Your task to perform on an android device: View the shopping cart on costco.com. Image 0: 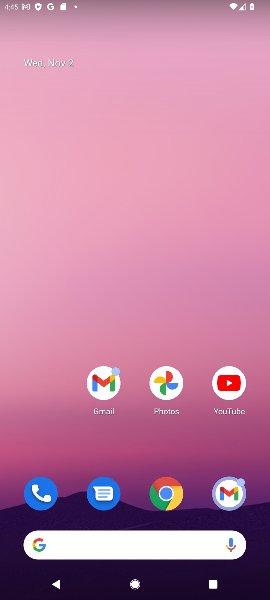
Step 0: drag from (104, 510) to (145, 156)
Your task to perform on an android device: View the shopping cart on costco.com. Image 1: 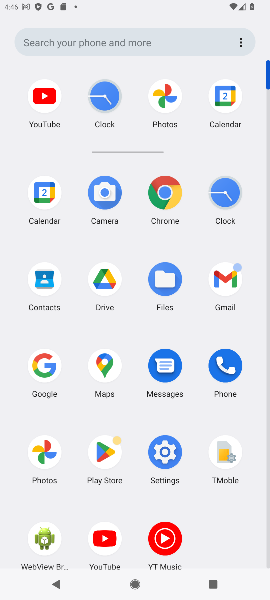
Step 1: click (40, 365)
Your task to perform on an android device: View the shopping cart on costco.com. Image 2: 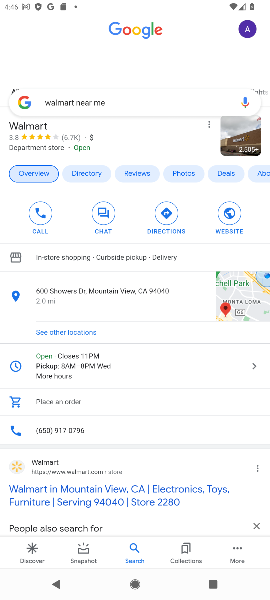
Step 2: click (112, 99)
Your task to perform on an android device: View the shopping cart on costco.com. Image 3: 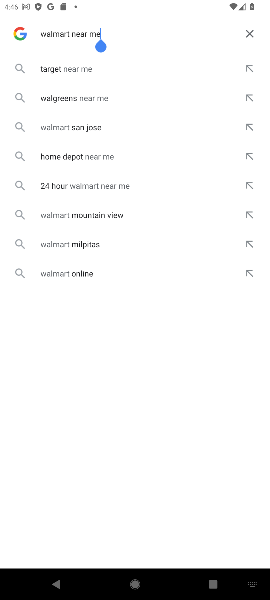
Step 3: click (251, 36)
Your task to perform on an android device: View the shopping cart on costco.com. Image 4: 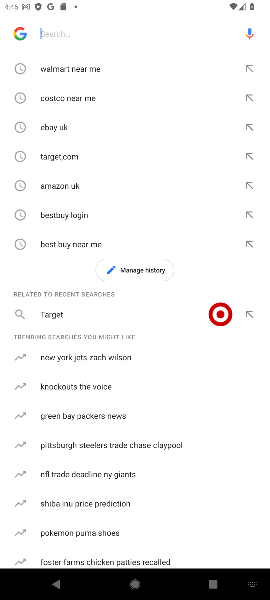
Step 4: click (73, 23)
Your task to perform on an android device: View the shopping cart on costco.com. Image 5: 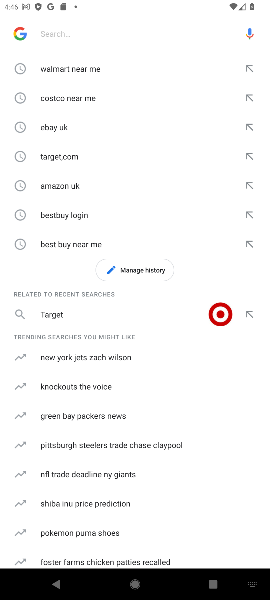
Step 5: type "costco "
Your task to perform on an android device: View the shopping cart on costco.com. Image 6: 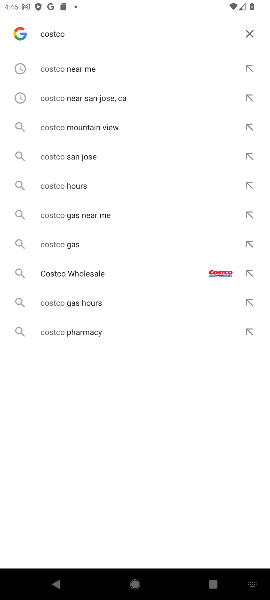
Step 6: click (62, 63)
Your task to perform on an android device: View the shopping cart on costco.com. Image 7: 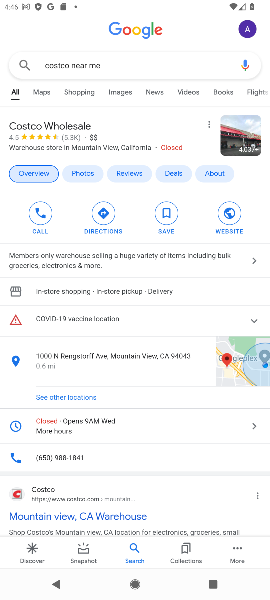
Step 7: click (18, 494)
Your task to perform on an android device: View the shopping cart on costco.com. Image 8: 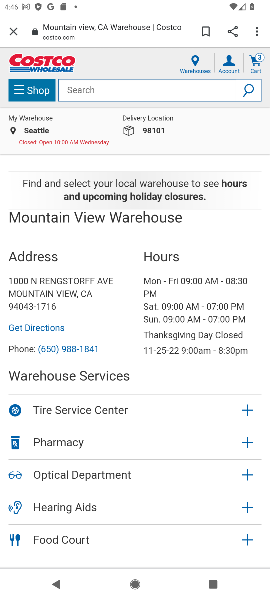
Step 8: click (111, 83)
Your task to perform on an android device: View the shopping cart on costco.com. Image 9: 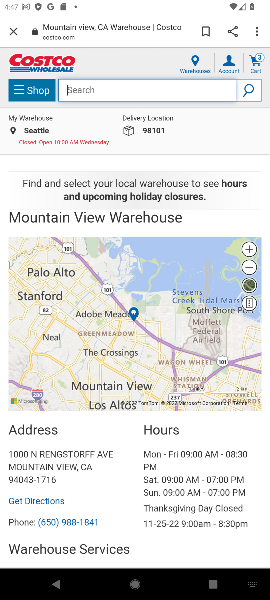
Step 9: click (255, 58)
Your task to perform on an android device: View the shopping cart on costco.com. Image 10: 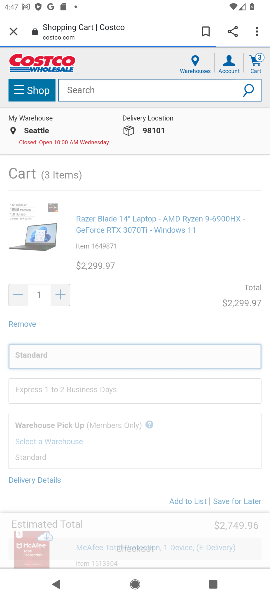
Step 10: task complete